Your task to perform on an android device: change the upload size in google photos Image 0: 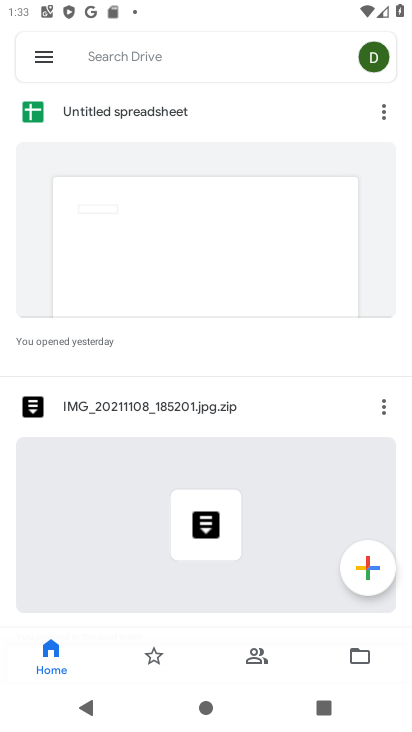
Step 0: drag from (340, 571) to (394, 77)
Your task to perform on an android device: change the upload size in google photos Image 1: 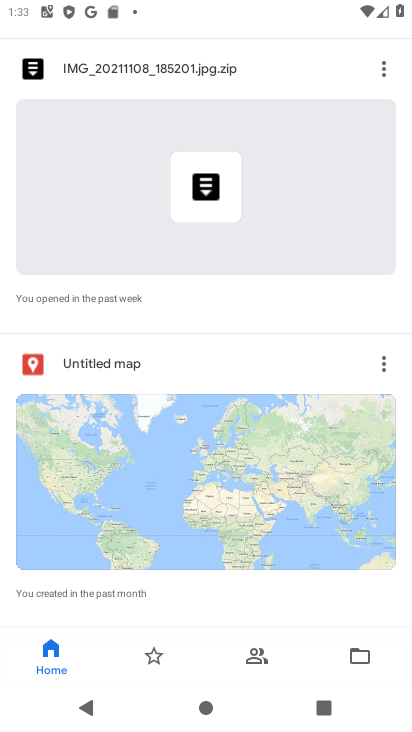
Step 1: press home button
Your task to perform on an android device: change the upload size in google photos Image 2: 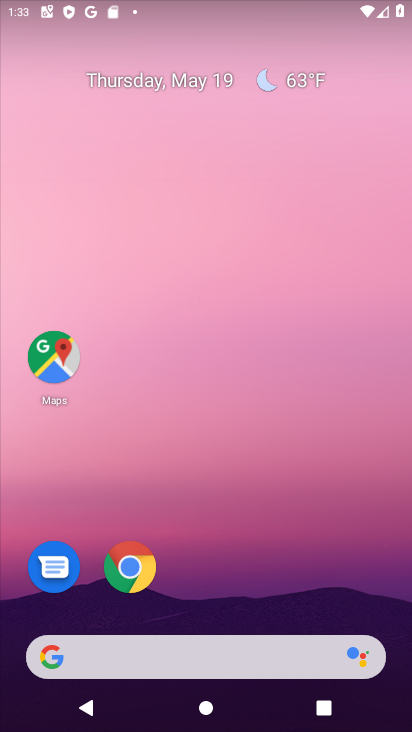
Step 2: click (295, 86)
Your task to perform on an android device: change the upload size in google photos Image 3: 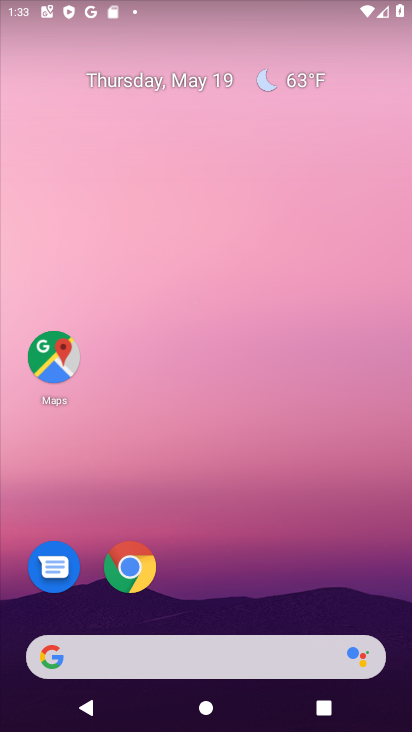
Step 3: drag from (269, 523) to (307, 130)
Your task to perform on an android device: change the upload size in google photos Image 4: 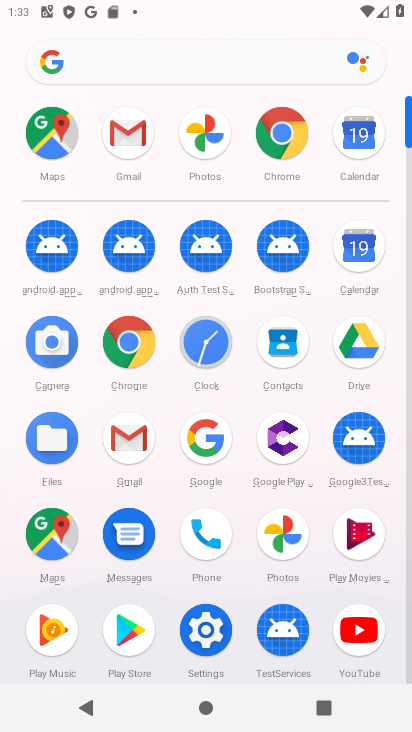
Step 4: click (204, 138)
Your task to perform on an android device: change the upload size in google photos Image 5: 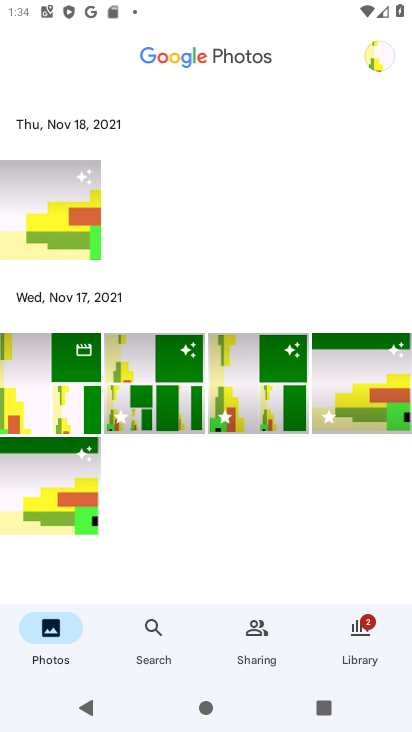
Step 5: click (363, 57)
Your task to perform on an android device: change the upload size in google photos Image 6: 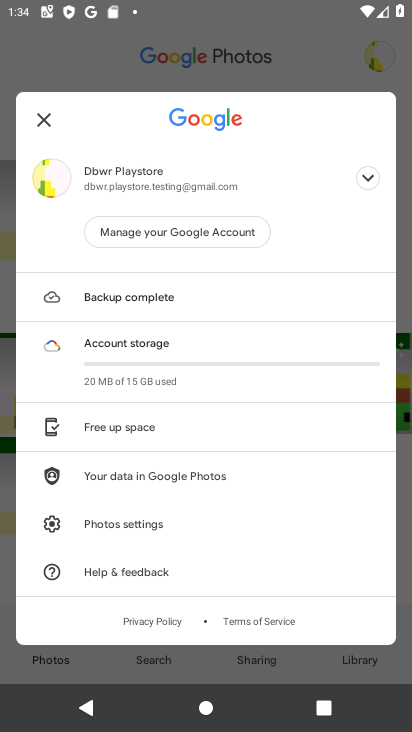
Step 6: click (111, 524)
Your task to perform on an android device: change the upload size in google photos Image 7: 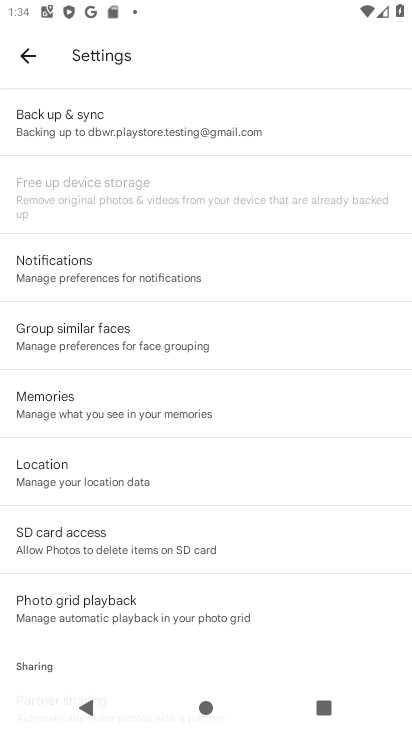
Step 7: click (84, 116)
Your task to perform on an android device: change the upload size in google photos Image 8: 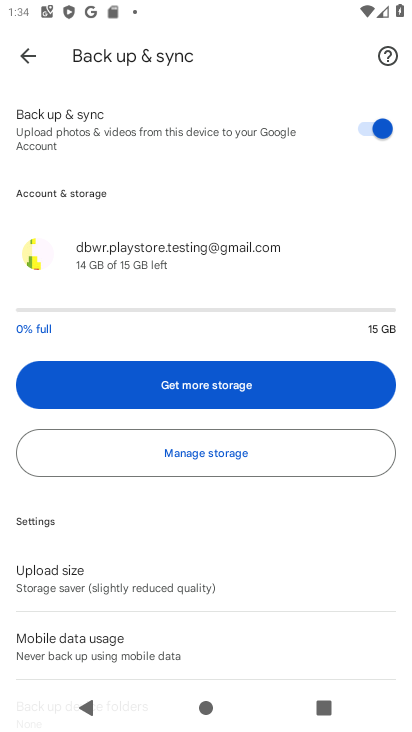
Step 8: drag from (153, 656) to (141, 456)
Your task to perform on an android device: change the upload size in google photos Image 9: 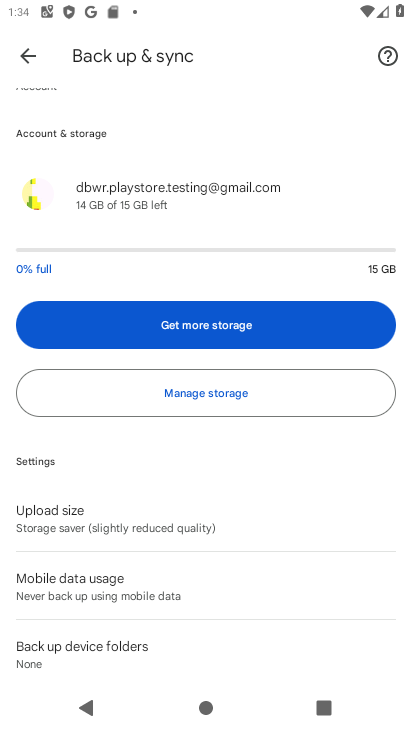
Step 9: click (94, 523)
Your task to perform on an android device: change the upload size in google photos Image 10: 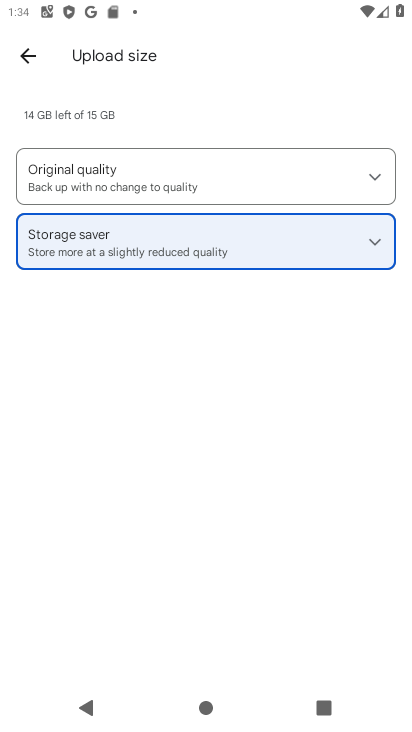
Step 10: click (188, 174)
Your task to perform on an android device: change the upload size in google photos Image 11: 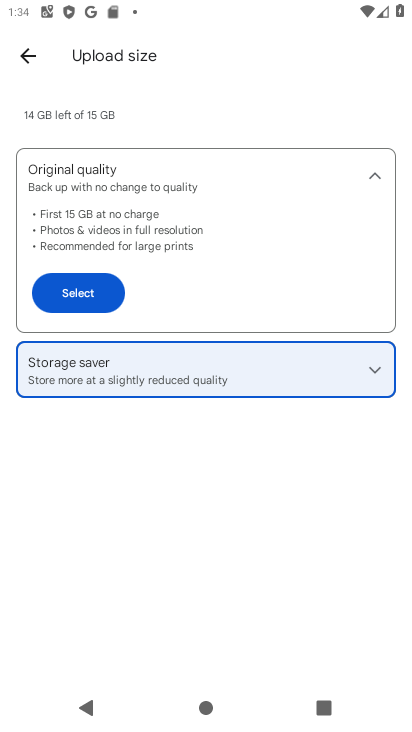
Step 11: click (73, 292)
Your task to perform on an android device: change the upload size in google photos Image 12: 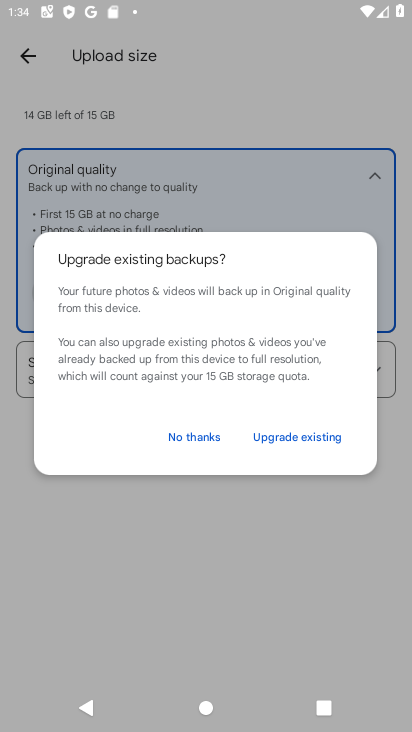
Step 12: click (298, 441)
Your task to perform on an android device: change the upload size in google photos Image 13: 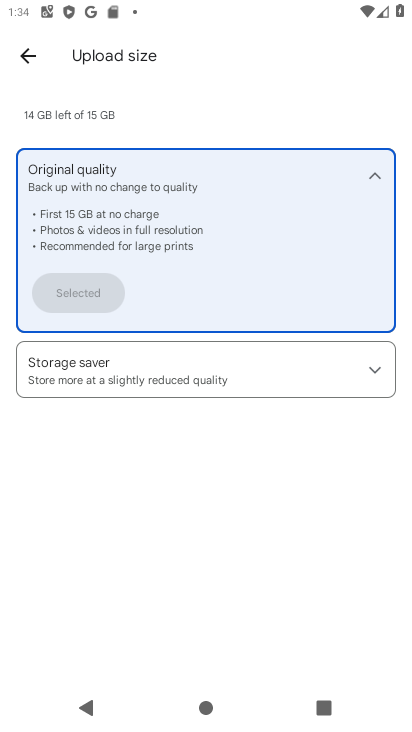
Step 13: task complete